Your task to perform on an android device: Clear the cart on ebay. Image 0: 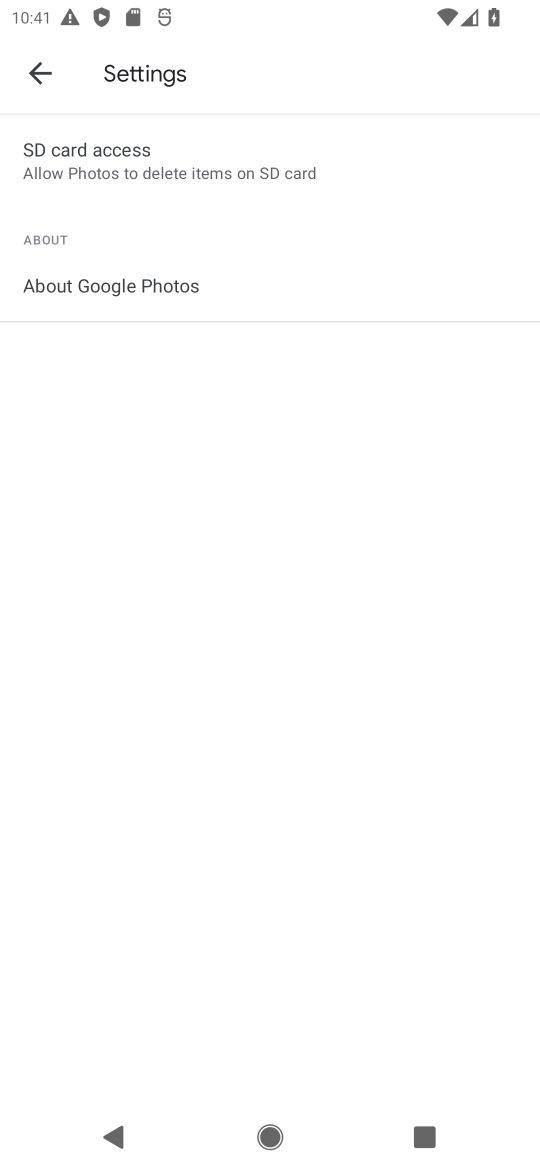
Step 0: press home button
Your task to perform on an android device: Clear the cart on ebay. Image 1: 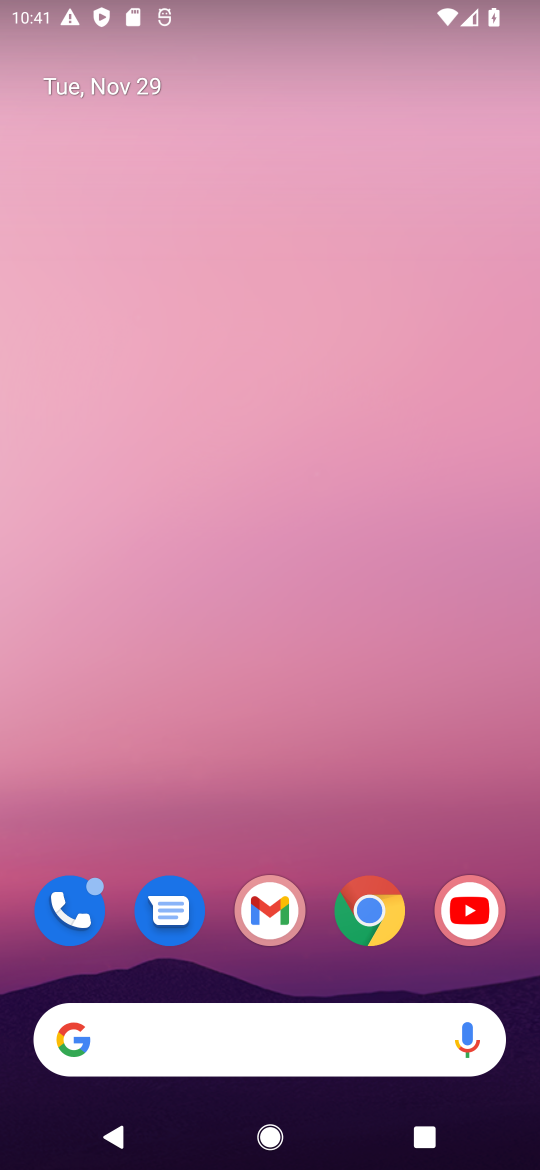
Step 1: click (371, 919)
Your task to perform on an android device: Clear the cart on ebay. Image 2: 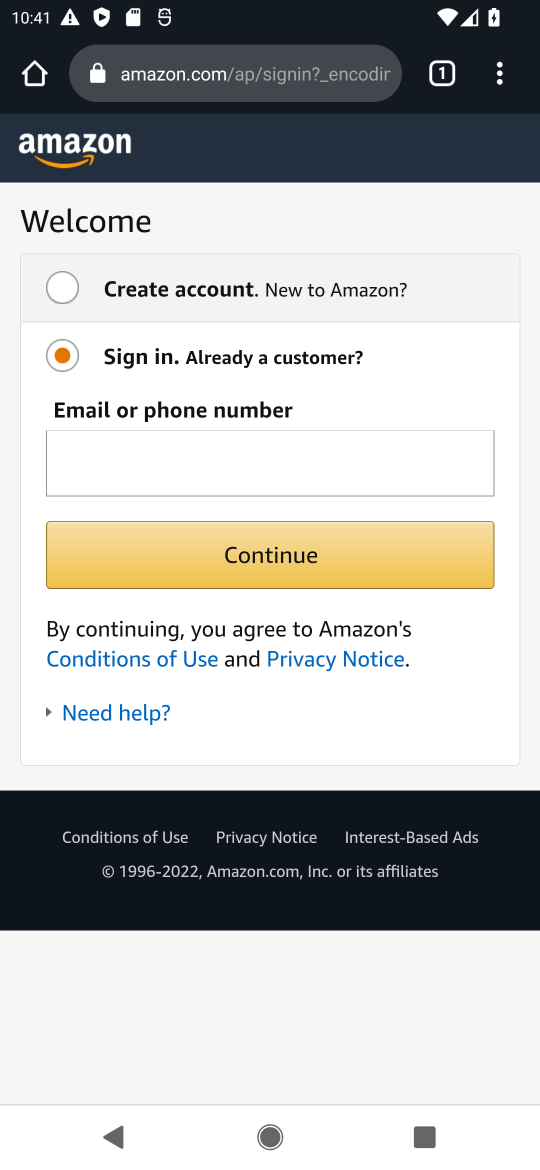
Step 2: click (218, 77)
Your task to perform on an android device: Clear the cart on ebay. Image 3: 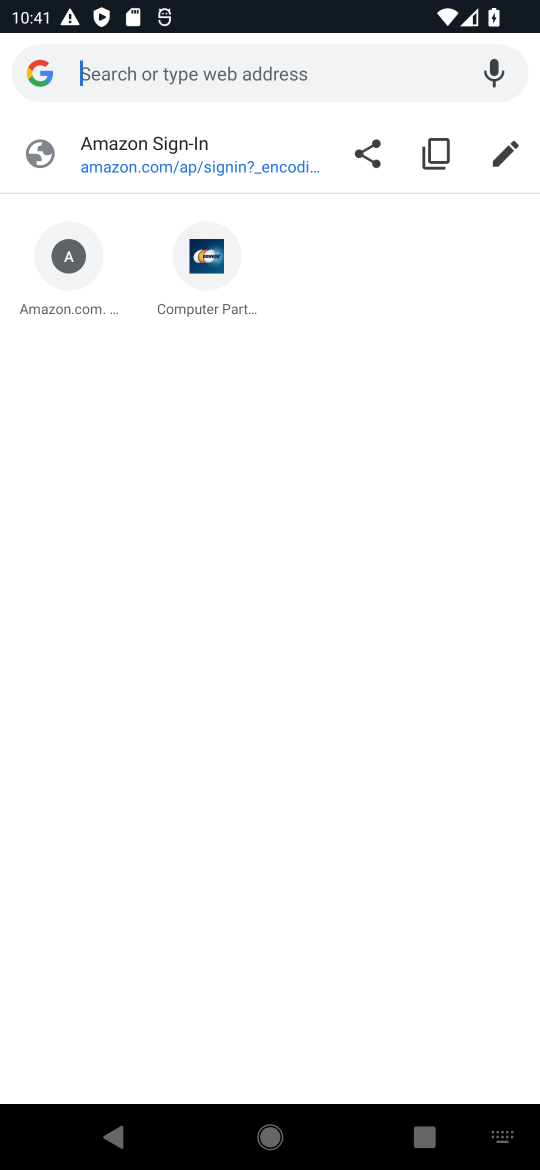
Step 3: type "ebay.com"
Your task to perform on an android device: Clear the cart on ebay. Image 4: 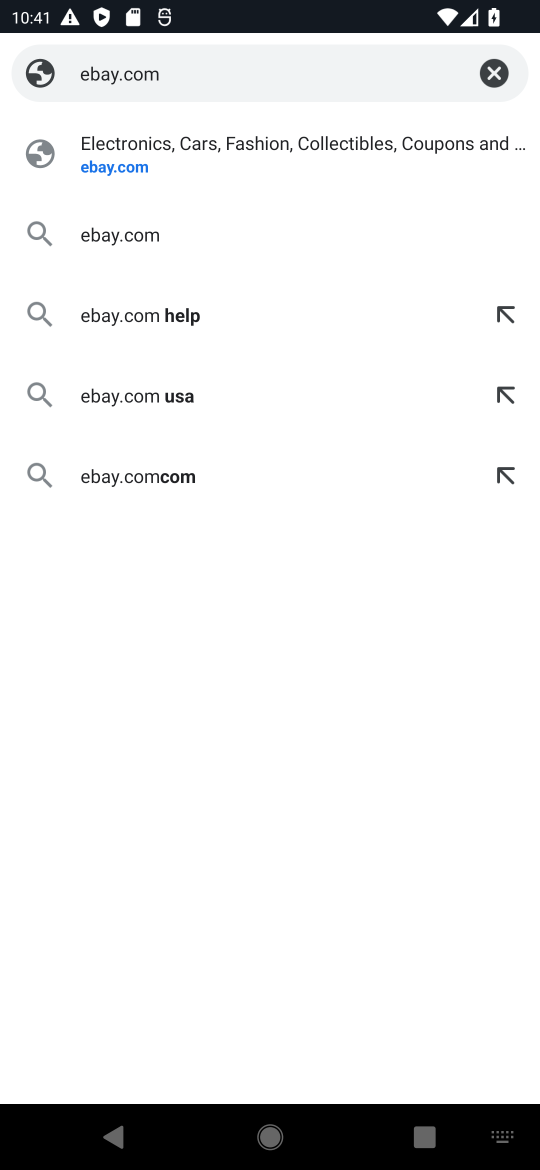
Step 4: click (129, 156)
Your task to perform on an android device: Clear the cart on ebay. Image 5: 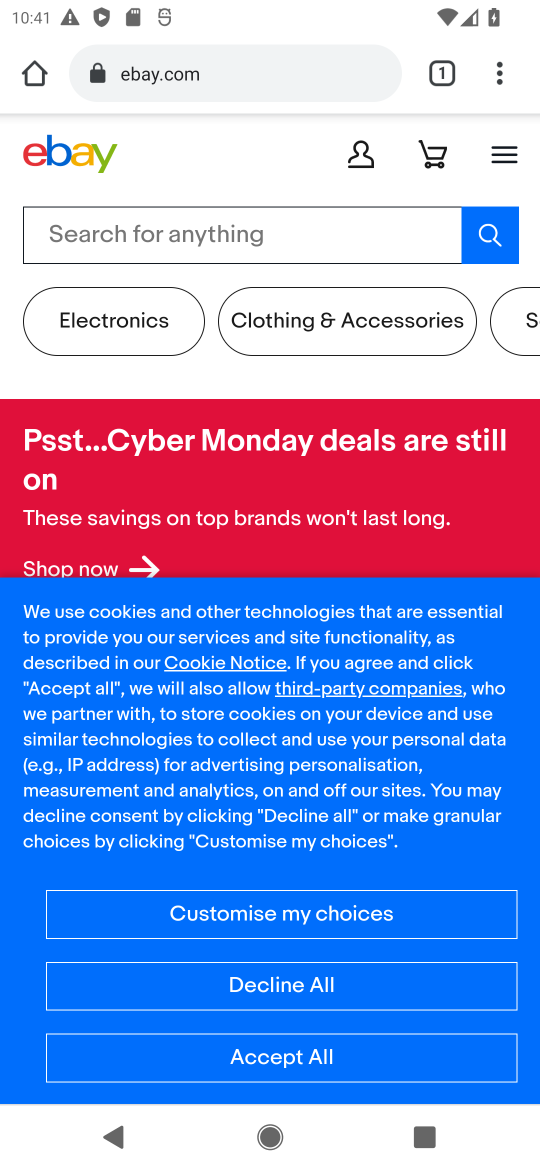
Step 5: click (264, 1064)
Your task to perform on an android device: Clear the cart on ebay. Image 6: 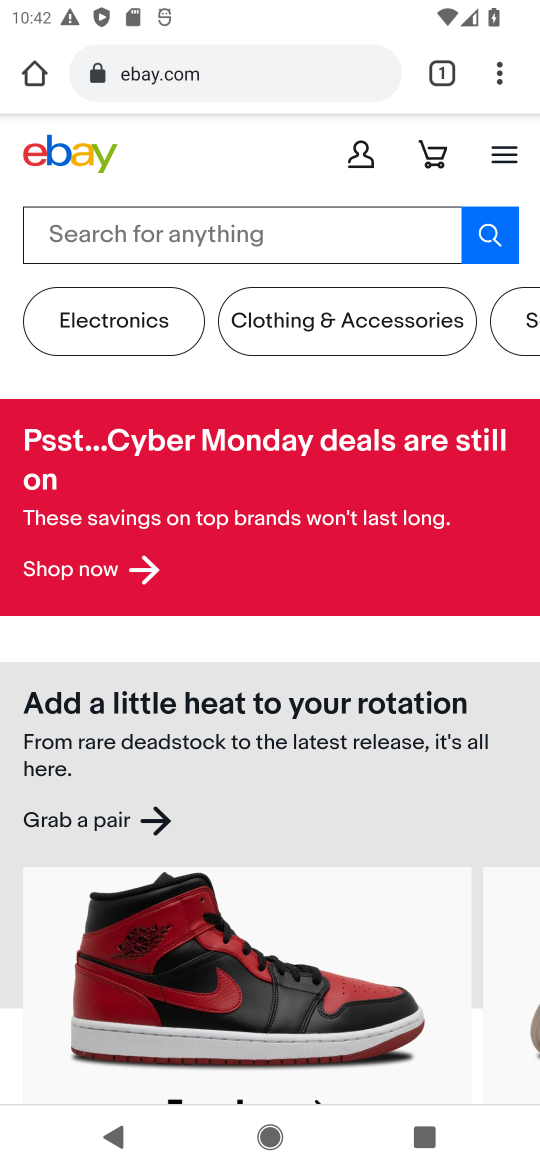
Step 6: click (427, 152)
Your task to perform on an android device: Clear the cart on ebay. Image 7: 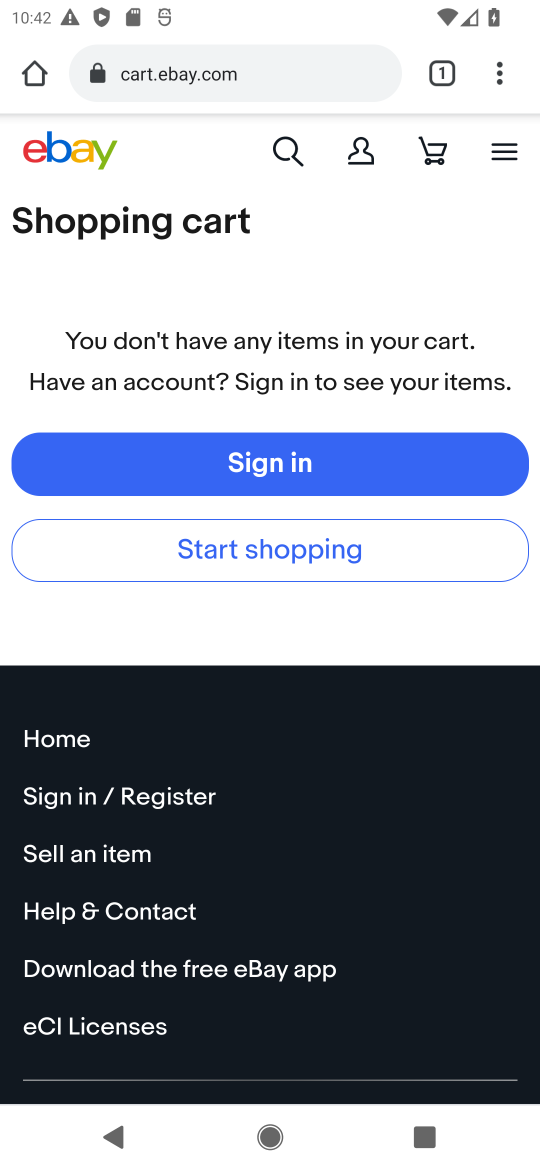
Step 7: task complete